Your task to perform on an android device: Open Yahoo.com Image 0: 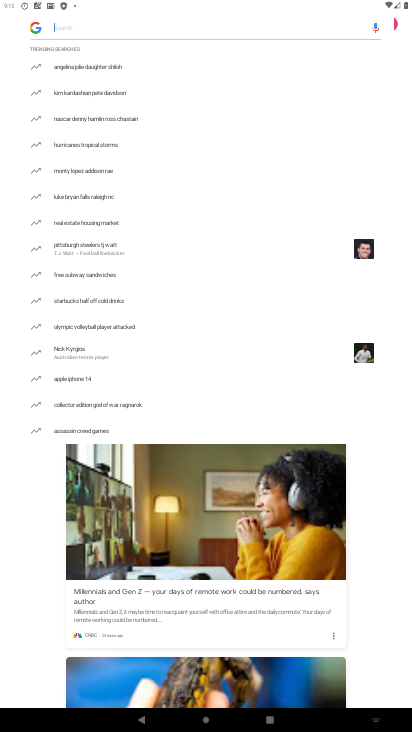
Step 0: press home button
Your task to perform on an android device: Open Yahoo.com Image 1: 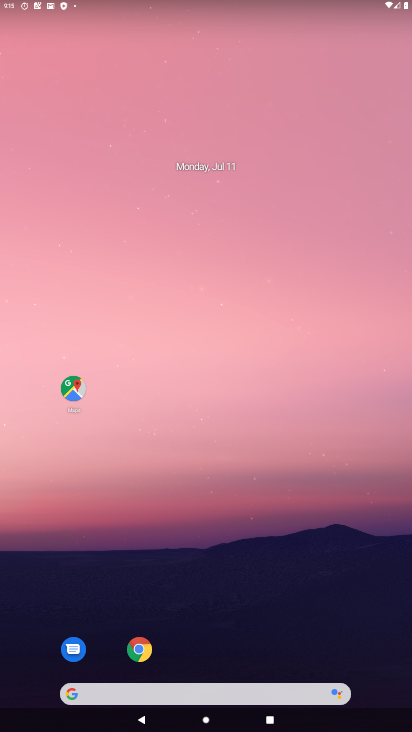
Step 1: drag from (302, 389) to (300, 4)
Your task to perform on an android device: Open Yahoo.com Image 2: 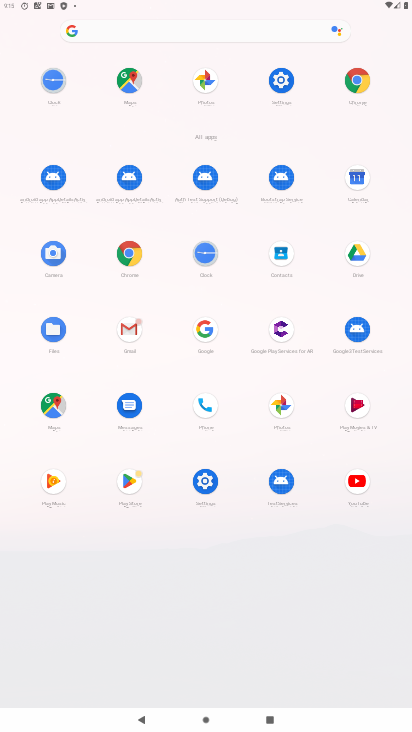
Step 2: click (362, 82)
Your task to perform on an android device: Open Yahoo.com Image 3: 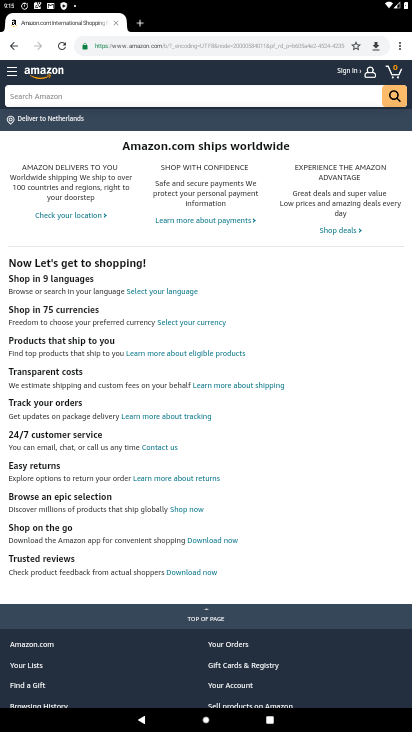
Step 3: click (13, 34)
Your task to perform on an android device: Open Yahoo.com Image 4: 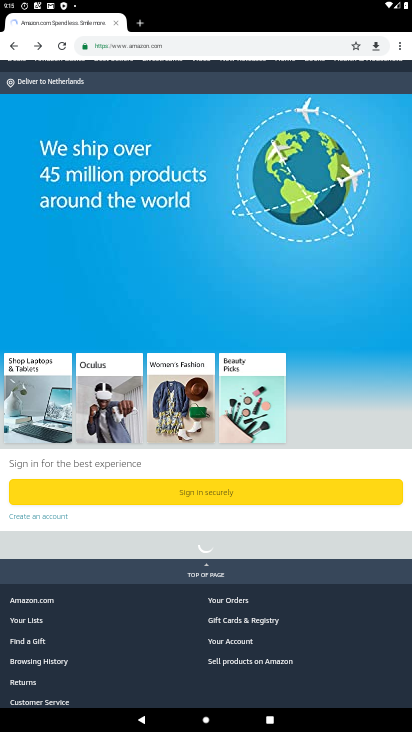
Step 4: click (12, 45)
Your task to perform on an android device: Open Yahoo.com Image 5: 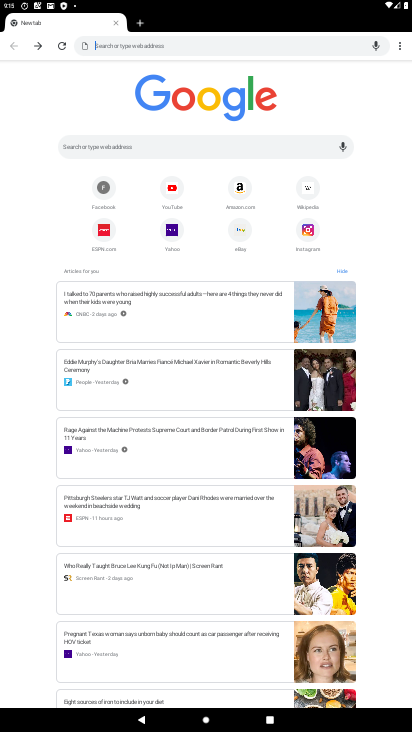
Step 5: click (161, 228)
Your task to perform on an android device: Open Yahoo.com Image 6: 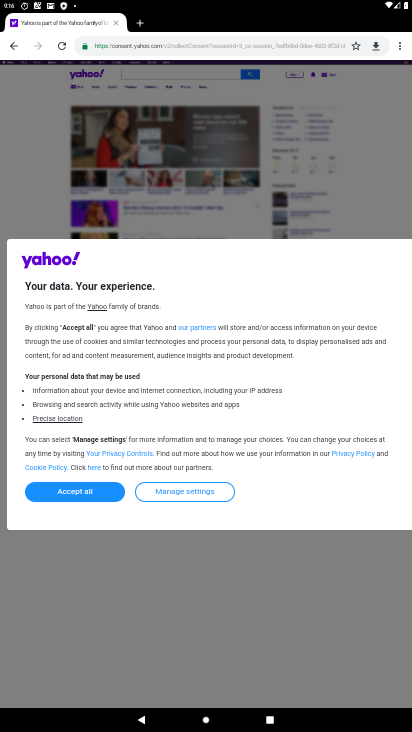
Step 6: task complete